Your task to perform on an android device: see tabs open on other devices in the chrome app Image 0: 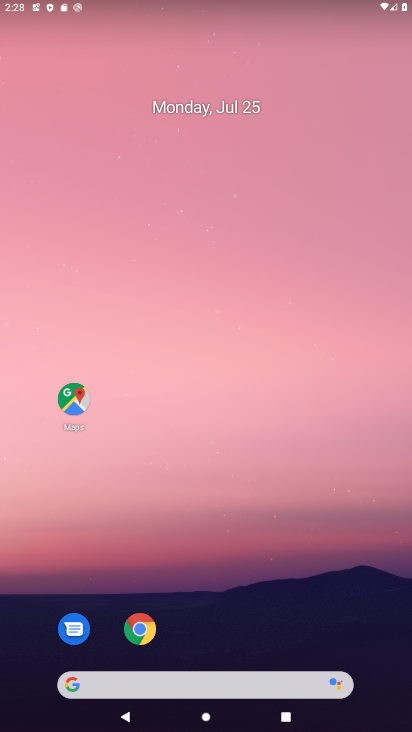
Step 0: click (137, 617)
Your task to perform on an android device: see tabs open on other devices in the chrome app Image 1: 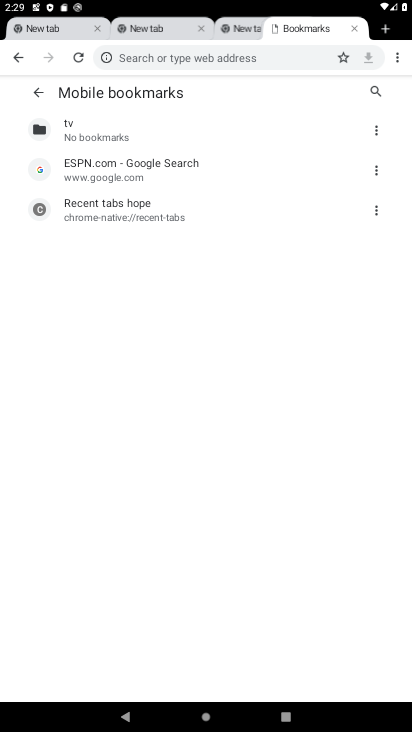
Step 1: click (386, 31)
Your task to perform on an android device: see tabs open on other devices in the chrome app Image 2: 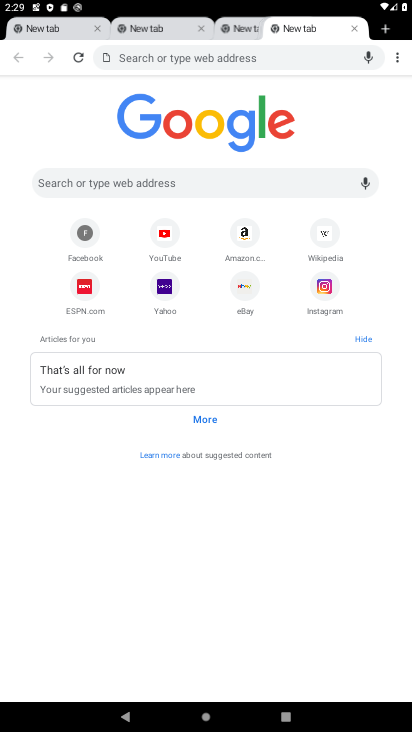
Step 2: task complete